Your task to perform on an android device: find which apps use the phone's location Image 0: 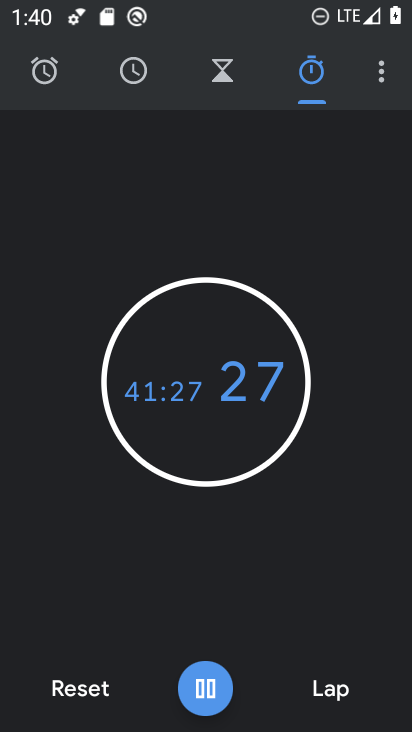
Step 0: press home button
Your task to perform on an android device: find which apps use the phone's location Image 1: 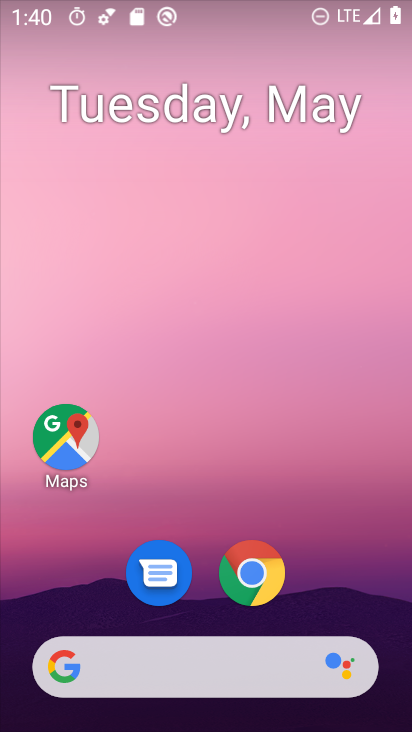
Step 1: drag from (350, 584) to (285, 161)
Your task to perform on an android device: find which apps use the phone's location Image 2: 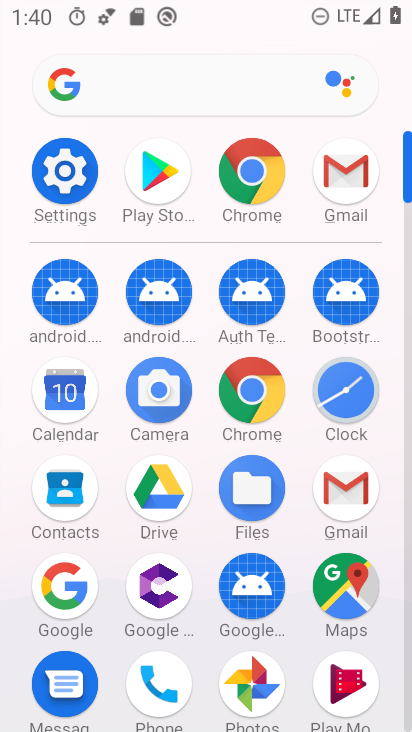
Step 2: click (64, 161)
Your task to perform on an android device: find which apps use the phone's location Image 3: 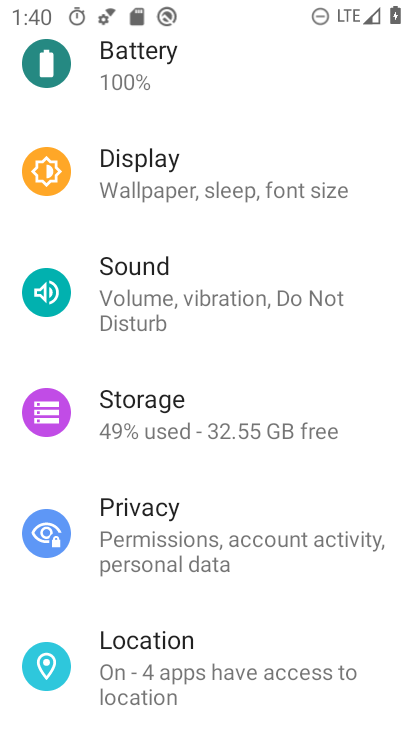
Step 3: click (197, 692)
Your task to perform on an android device: find which apps use the phone's location Image 4: 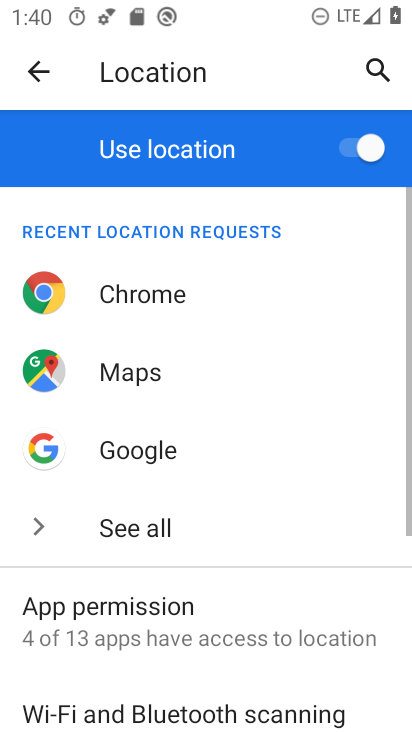
Step 4: click (157, 617)
Your task to perform on an android device: find which apps use the phone's location Image 5: 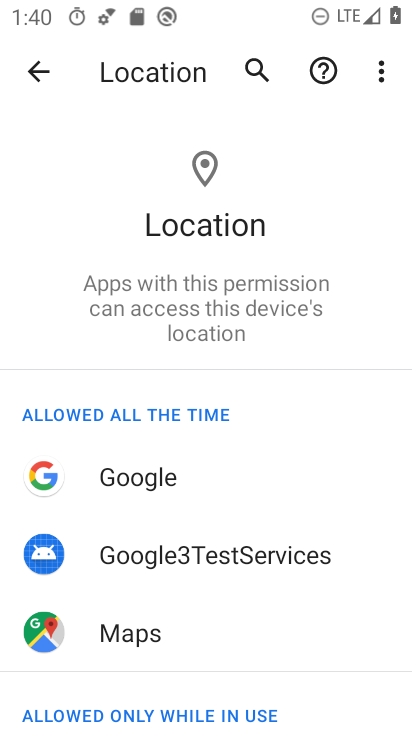
Step 5: task complete